Your task to perform on an android device: change keyboard looks Image 0: 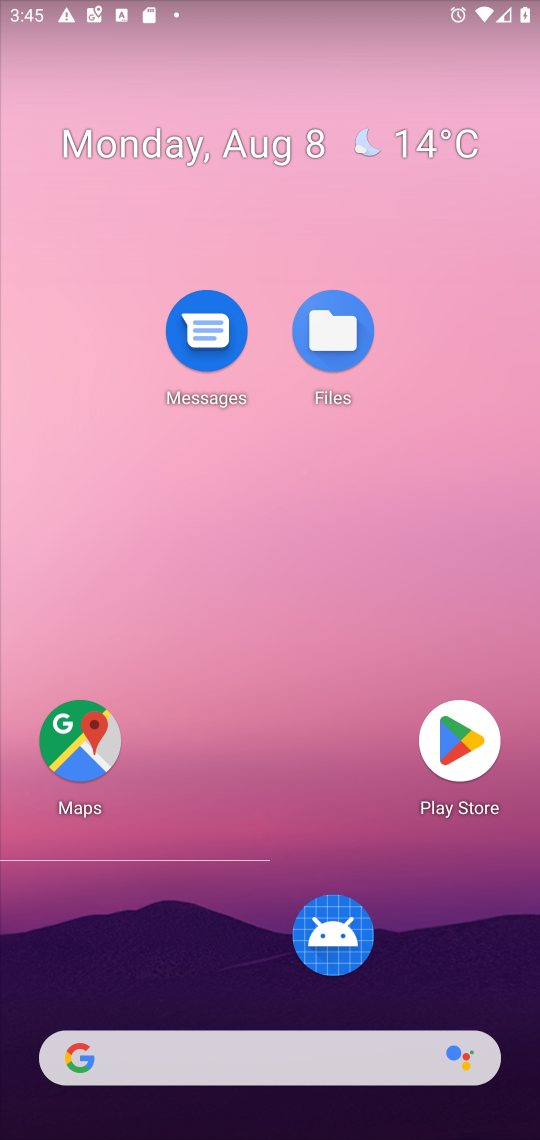
Step 0: drag from (267, 1079) to (494, 885)
Your task to perform on an android device: change keyboard looks Image 1: 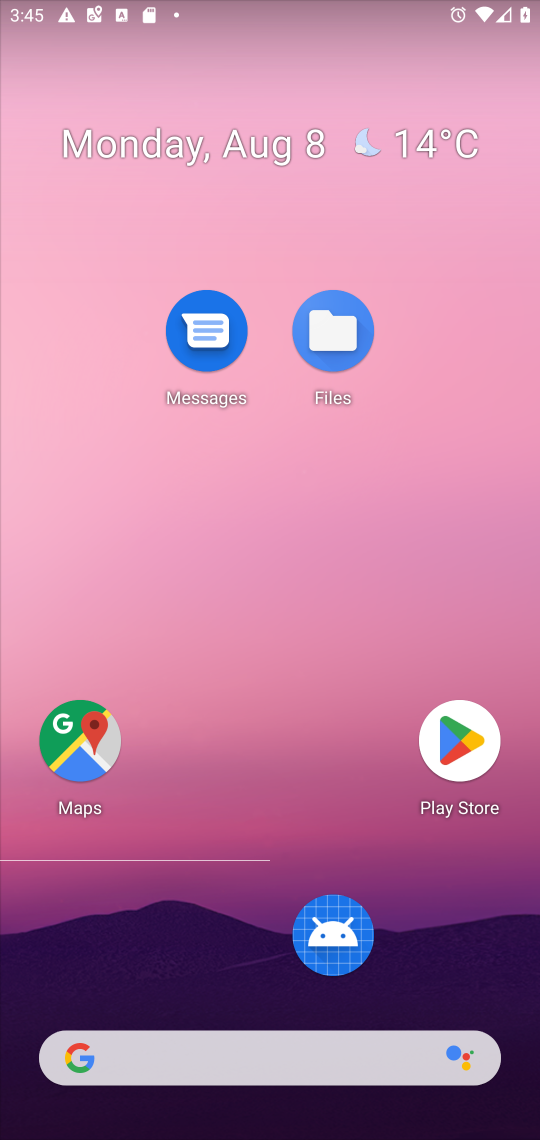
Step 1: drag from (233, 1041) to (241, 297)
Your task to perform on an android device: change keyboard looks Image 2: 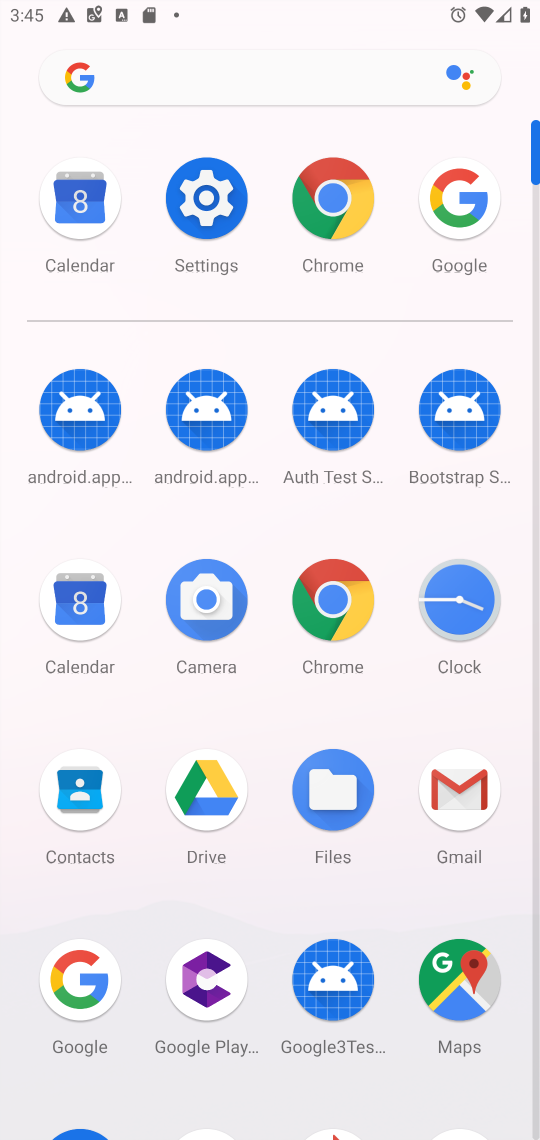
Step 2: click (206, 196)
Your task to perform on an android device: change keyboard looks Image 3: 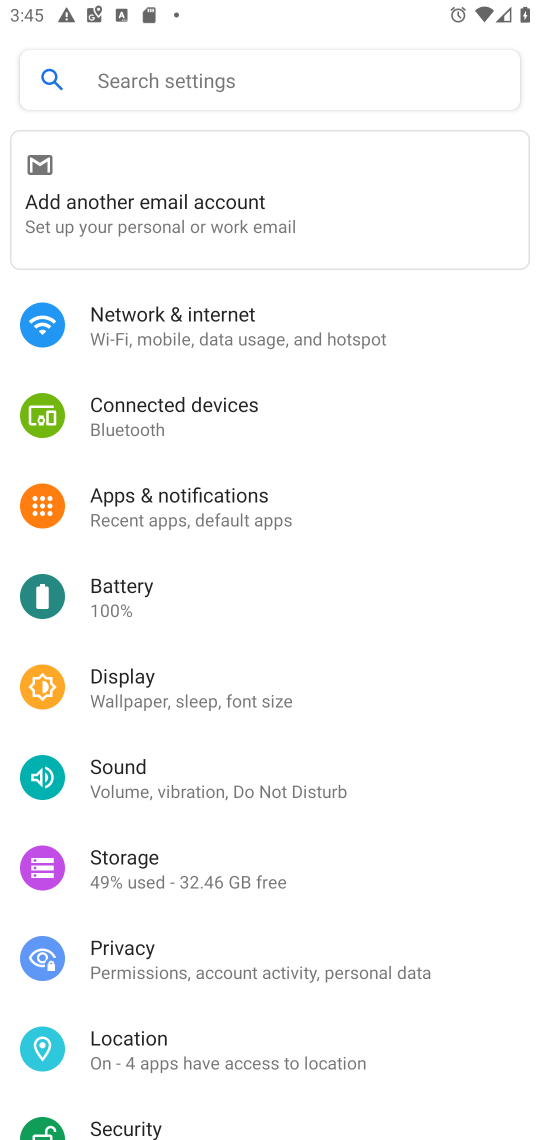
Step 3: drag from (488, 1090) to (476, 252)
Your task to perform on an android device: change keyboard looks Image 4: 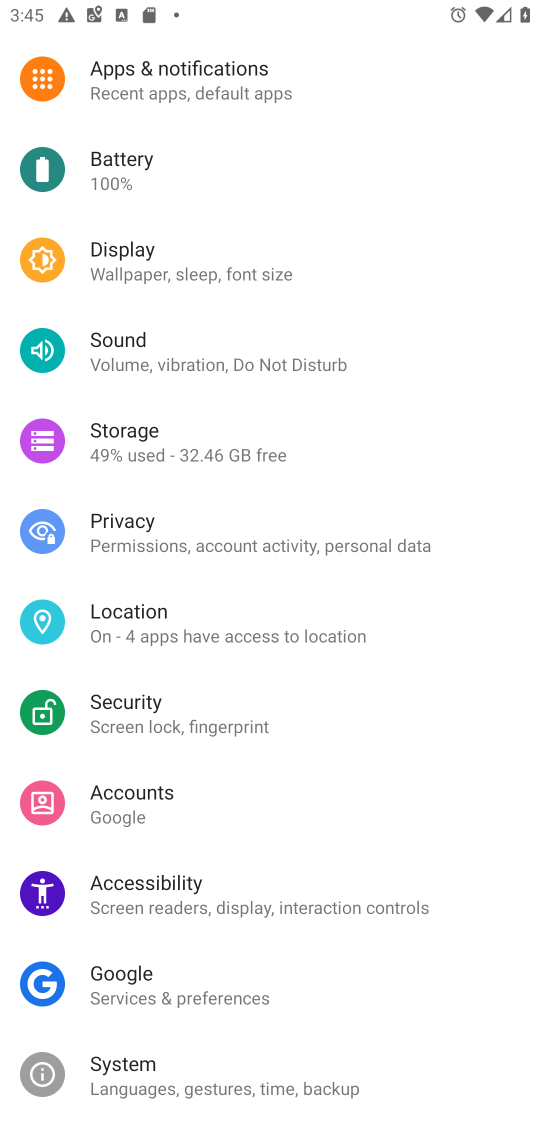
Step 4: click (171, 1084)
Your task to perform on an android device: change keyboard looks Image 5: 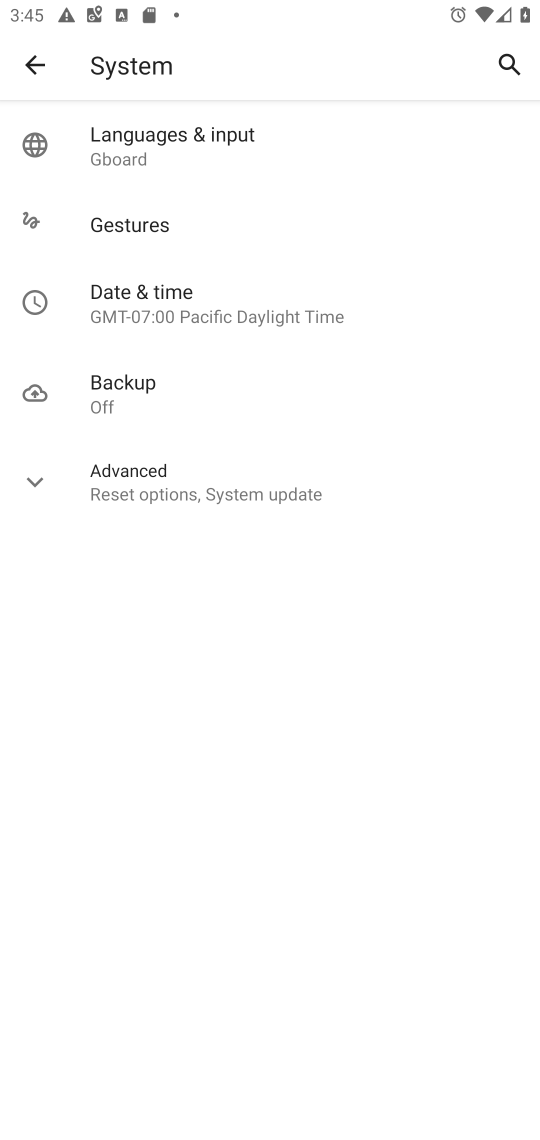
Step 5: click (176, 156)
Your task to perform on an android device: change keyboard looks Image 6: 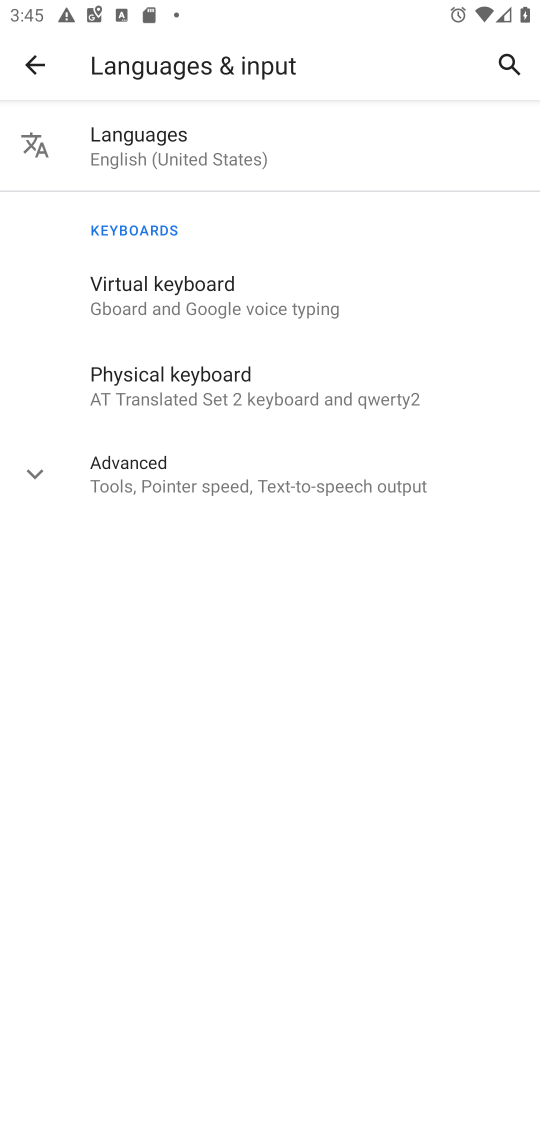
Step 6: click (204, 291)
Your task to perform on an android device: change keyboard looks Image 7: 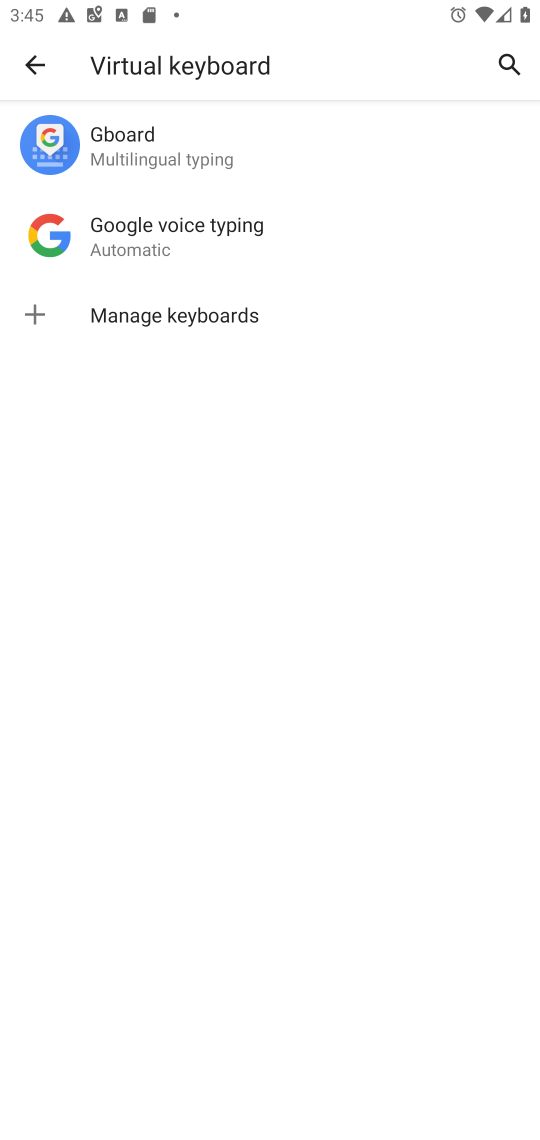
Step 7: click (147, 123)
Your task to perform on an android device: change keyboard looks Image 8: 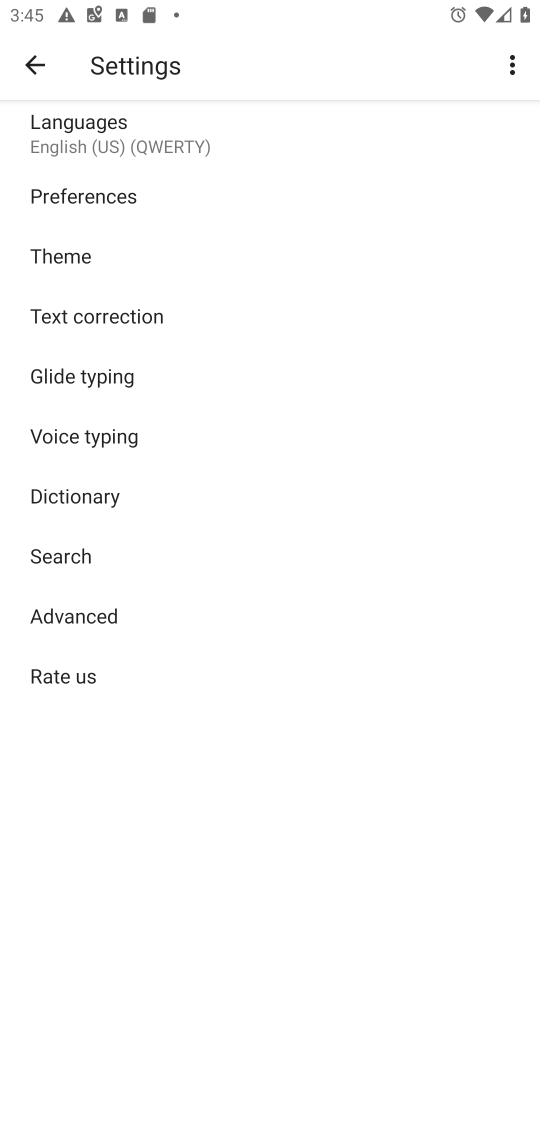
Step 8: click (98, 260)
Your task to perform on an android device: change keyboard looks Image 9: 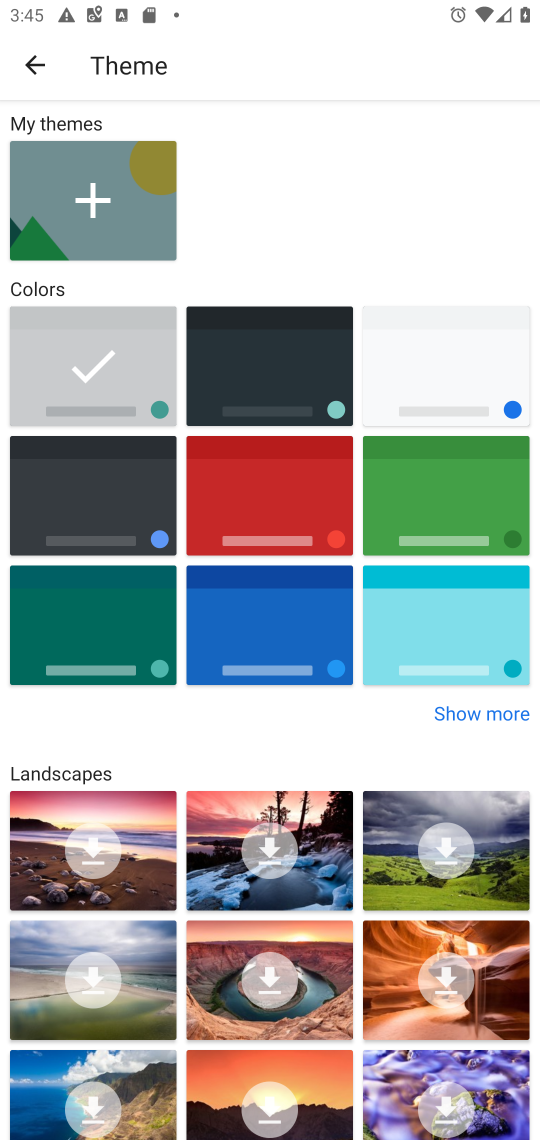
Step 9: click (262, 501)
Your task to perform on an android device: change keyboard looks Image 10: 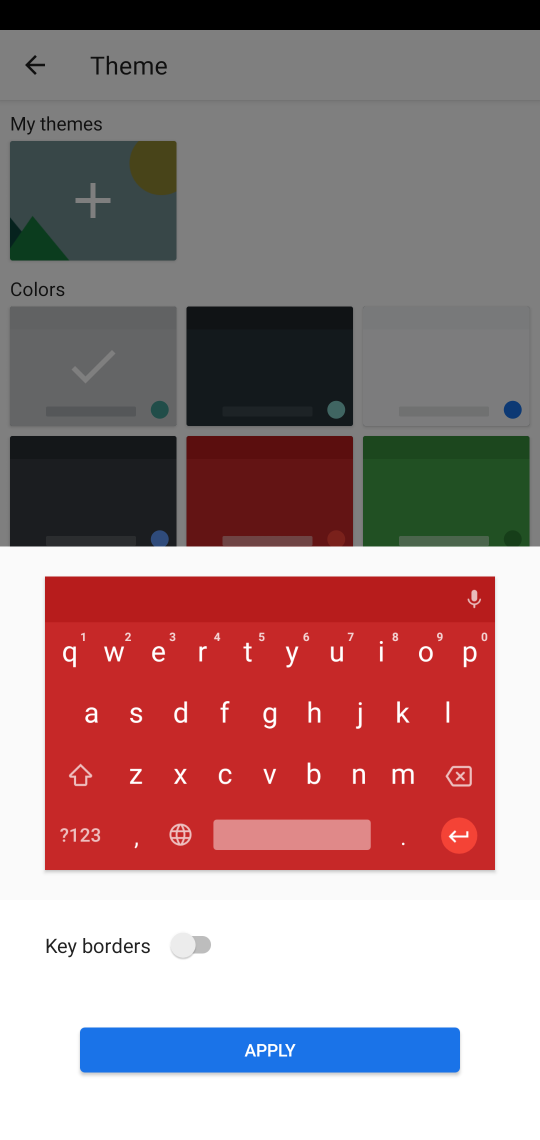
Step 10: click (245, 1047)
Your task to perform on an android device: change keyboard looks Image 11: 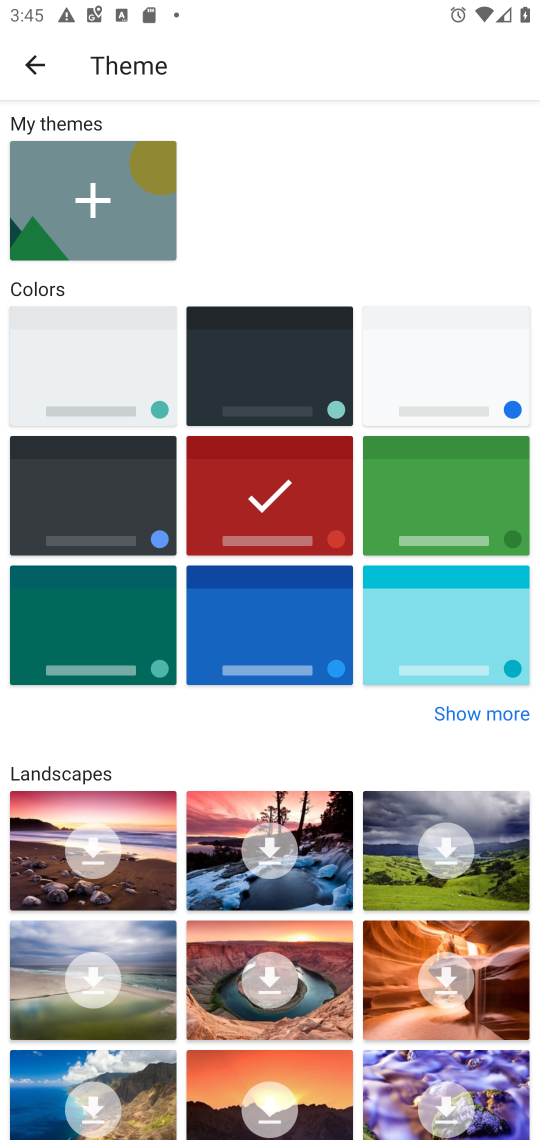
Step 11: task complete